Your task to perform on an android device: find photos in the google photos app Image 0: 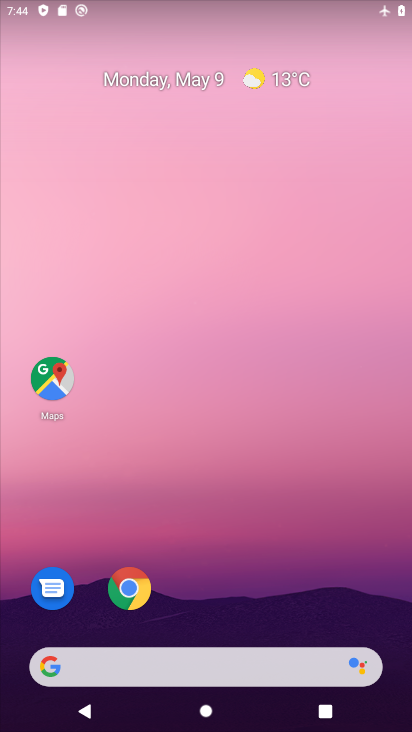
Step 0: drag from (333, 603) to (327, 324)
Your task to perform on an android device: find photos in the google photos app Image 1: 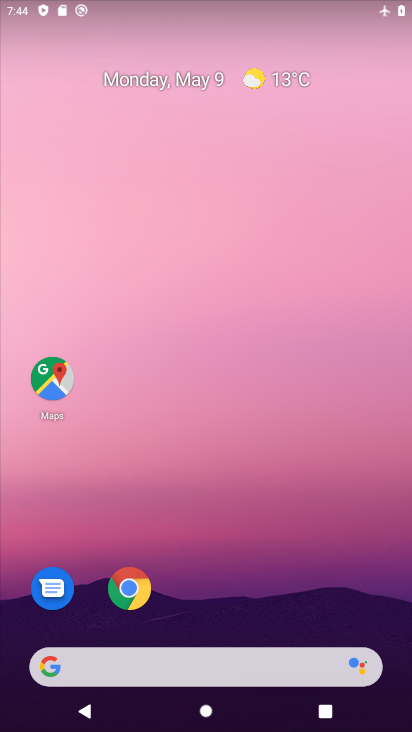
Step 1: drag from (265, 592) to (280, 12)
Your task to perform on an android device: find photos in the google photos app Image 2: 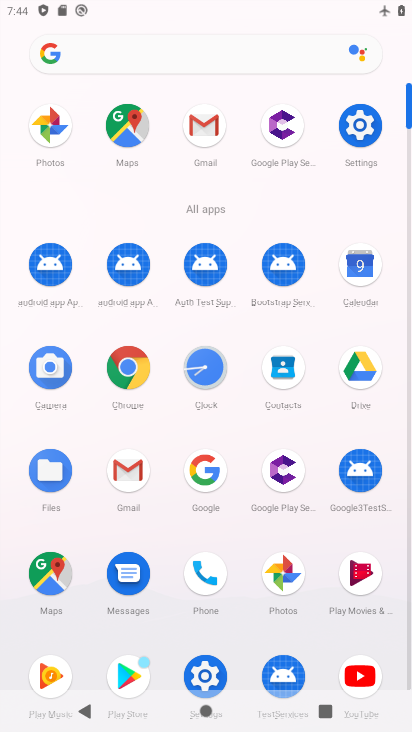
Step 2: click (56, 135)
Your task to perform on an android device: find photos in the google photos app Image 3: 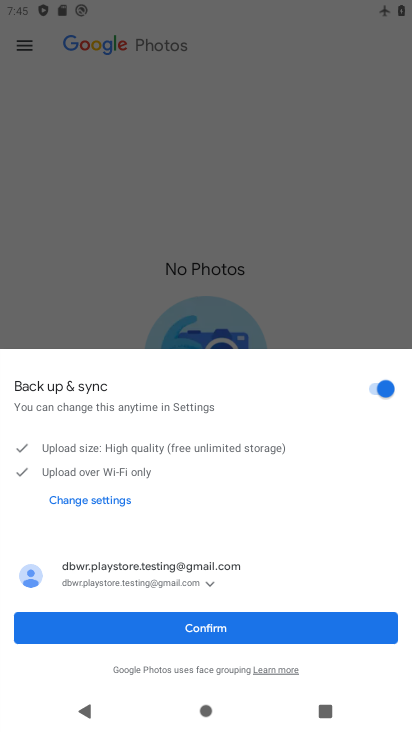
Step 3: click (130, 611)
Your task to perform on an android device: find photos in the google photos app Image 4: 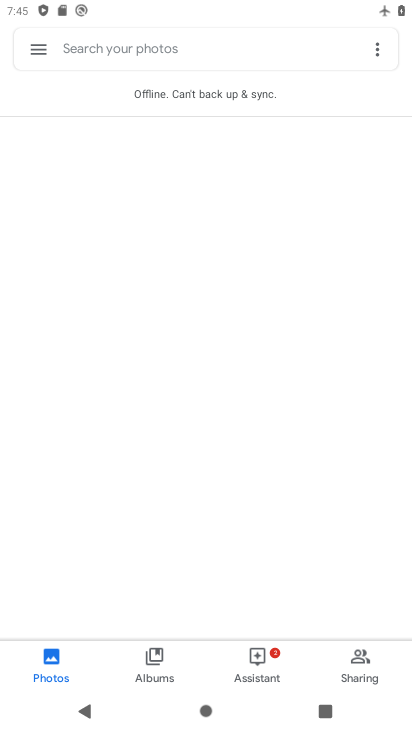
Step 4: task complete